Your task to perform on an android device: change the upload size in google photos Image 0: 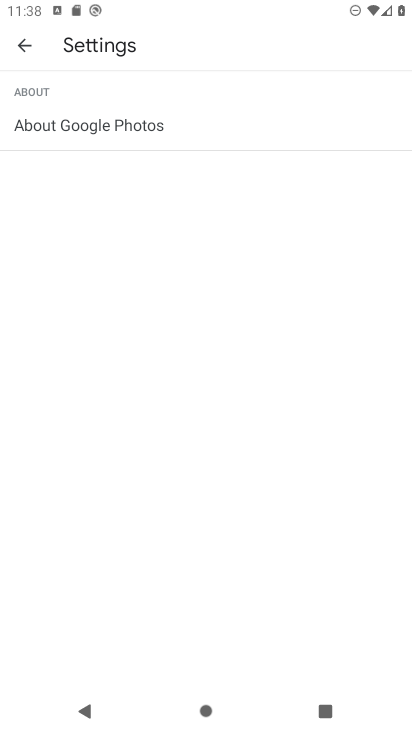
Step 0: press home button
Your task to perform on an android device: change the upload size in google photos Image 1: 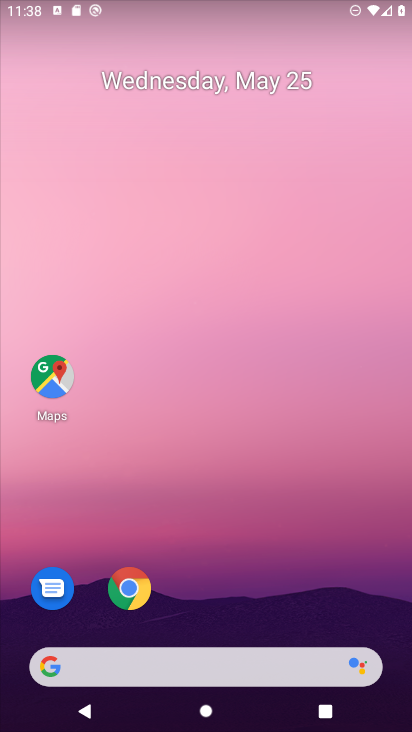
Step 1: drag from (67, 563) to (318, 158)
Your task to perform on an android device: change the upload size in google photos Image 2: 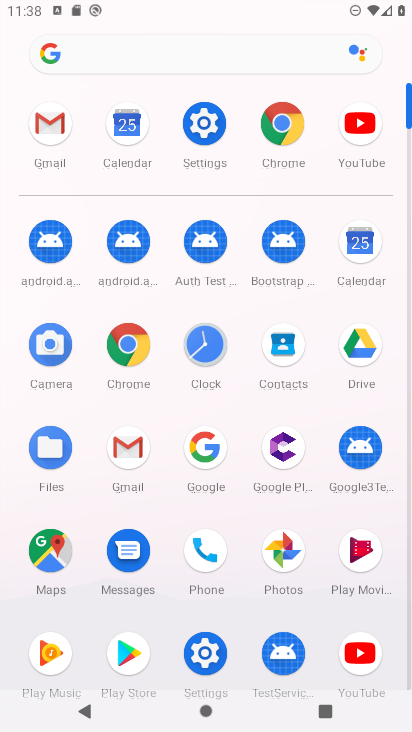
Step 2: click (287, 559)
Your task to perform on an android device: change the upload size in google photos Image 3: 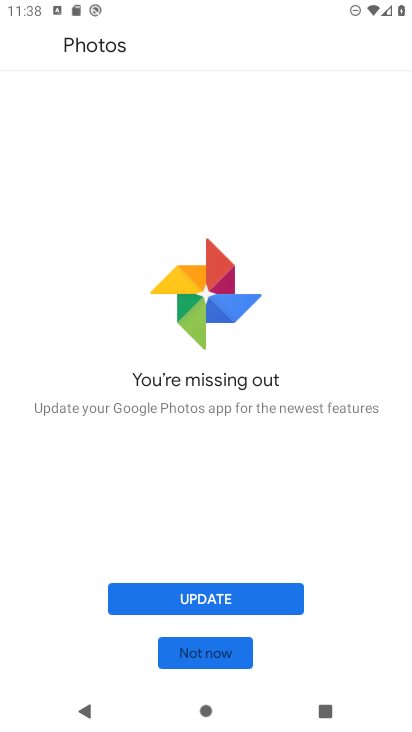
Step 3: click (212, 653)
Your task to perform on an android device: change the upload size in google photos Image 4: 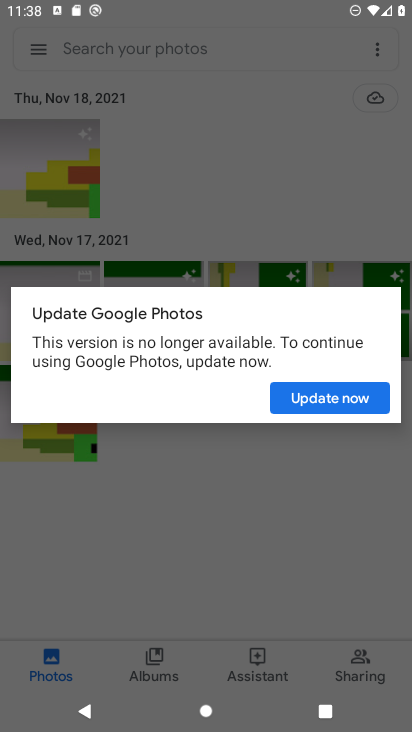
Step 4: click (366, 394)
Your task to perform on an android device: change the upload size in google photos Image 5: 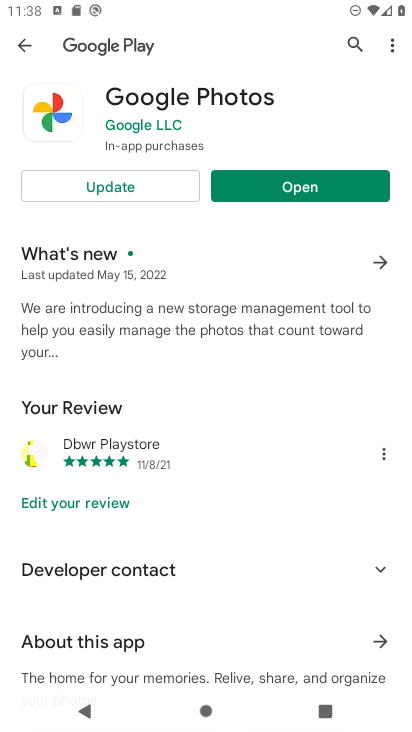
Step 5: click (346, 195)
Your task to perform on an android device: change the upload size in google photos Image 6: 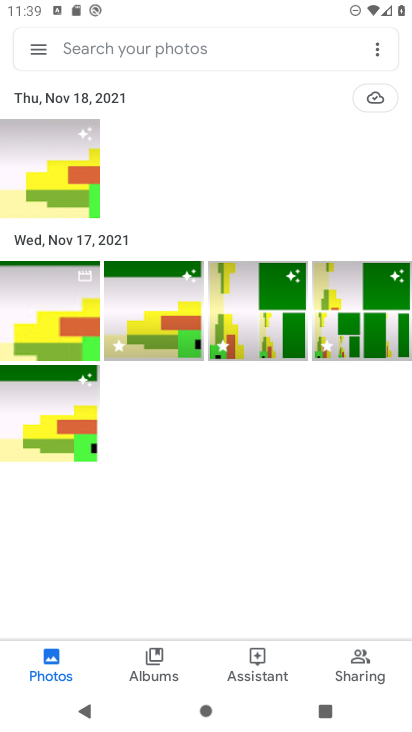
Step 6: click (34, 46)
Your task to perform on an android device: change the upload size in google photos Image 7: 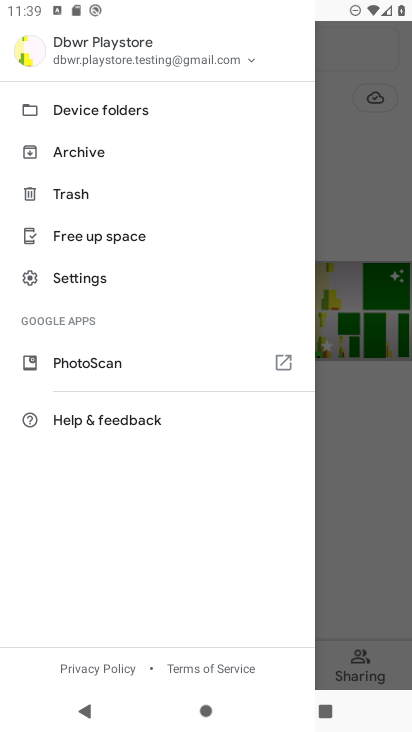
Step 7: click (111, 278)
Your task to perform on an android device: change the upload size in google photos Image 8: 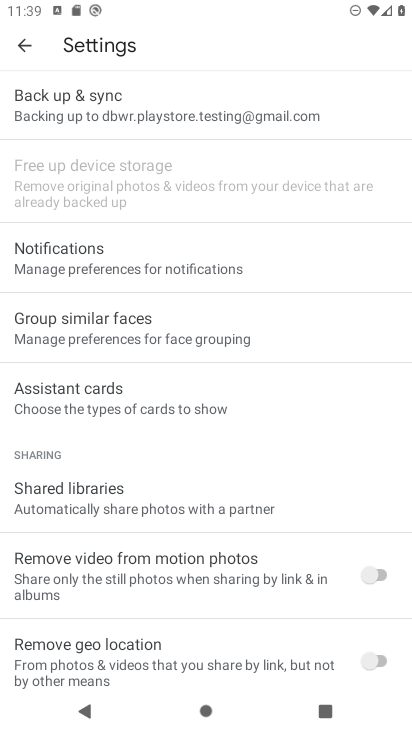
Step 8: click (252, 111)
Your task to perform on an android device: change the upload size in google photos Image 9: 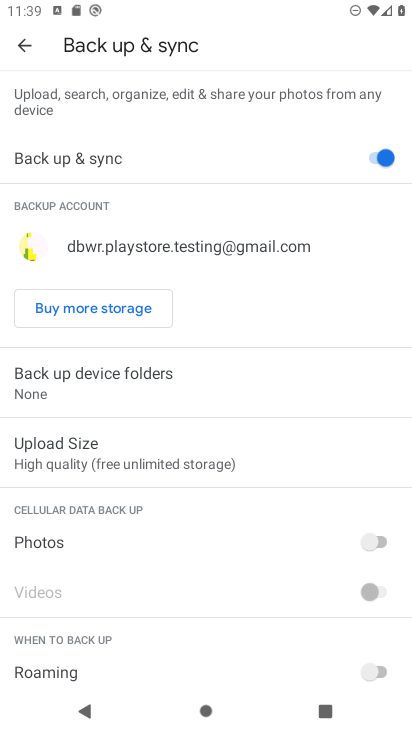
Step 9: click (103, 469)
Your task to perform on an android device: change the upload size in google photos Image 10: 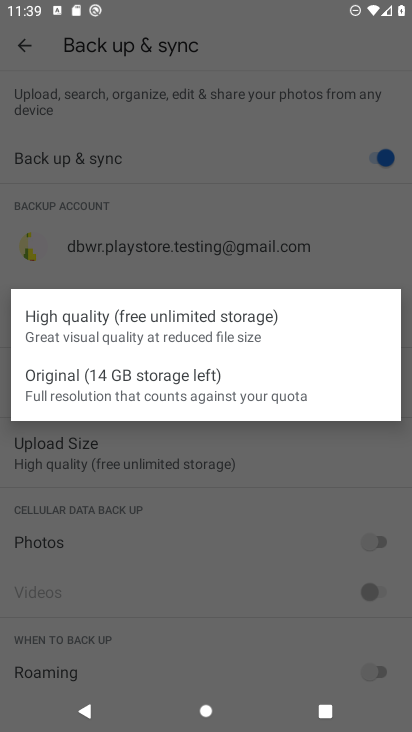
Step 10: click (135, 393)
Your task to perform on an android device: change the upload size in google photos Image 11: 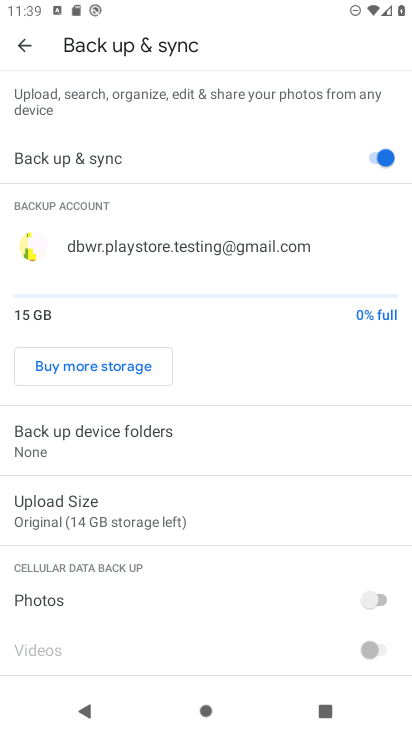
Step 11: task complete